Your task to perform on an android device: Go to display settings Image 0: 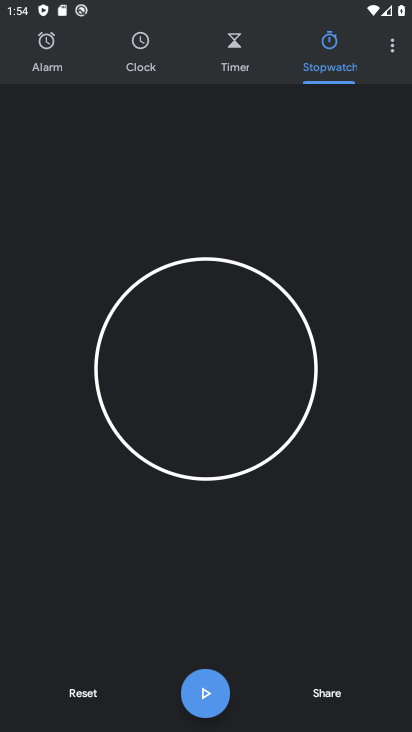
Step 0: drag from (320, 554) to (303, 307)
Your task to perform on an android device: Go to display settings Image 1: 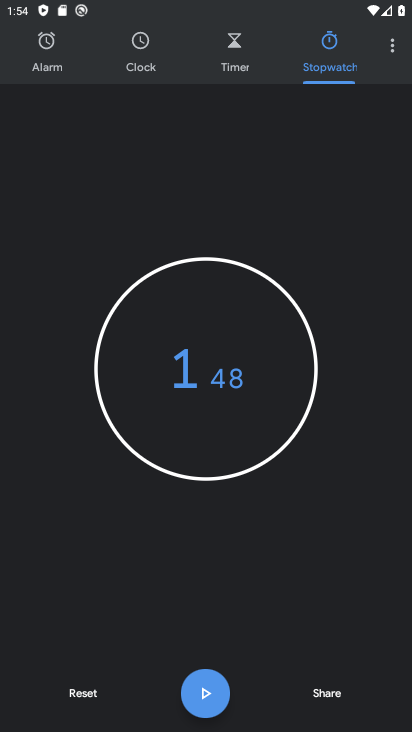
Step 1: press home button
Your task to perform on an android device: Go to display settings Image 2: 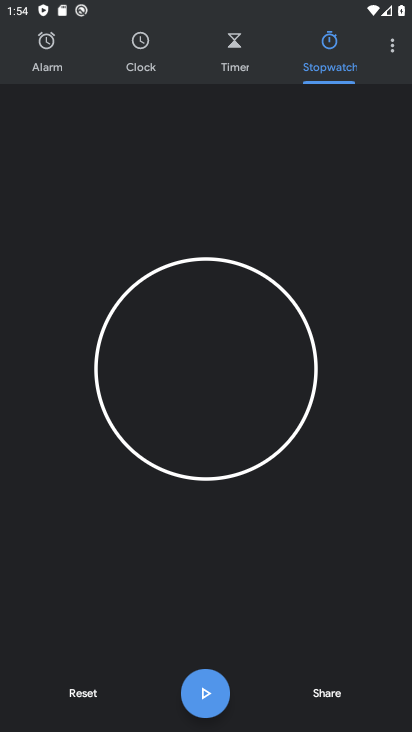
Step 2: press home button
Your task to perform on an android device: Go to display settings Image 3: 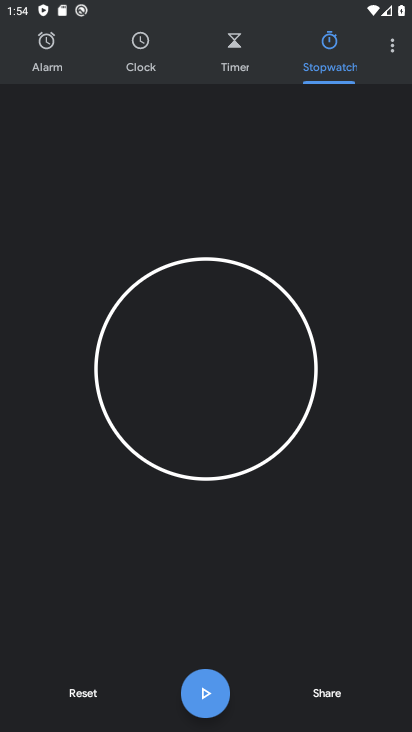
Step 3: drag from (260, 402) to (268, 228)
Your task to perform on an android device: Go to display settings Image 4: 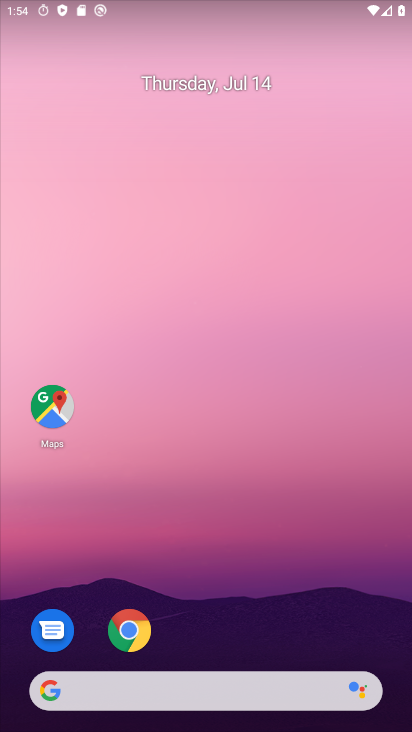
Step 4: drag from (194, 614) to (222, 142)
Your task to perform on an android device: Go to display settings Image 5: 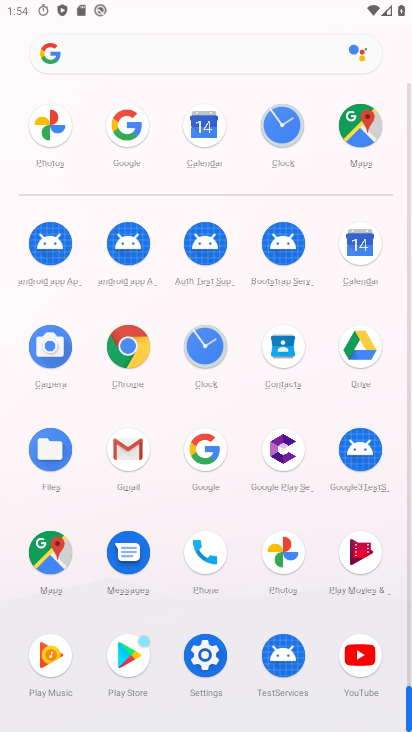
Step 5: click (215, 651)
Your task to perform on an android device: Go to display settings Image 6: 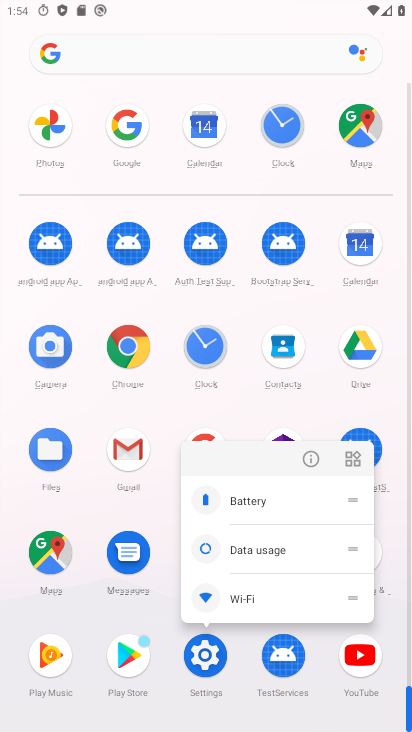
Step 6: click (315, 456)
Your task to perform on an android device: Go to display settings Image 7: 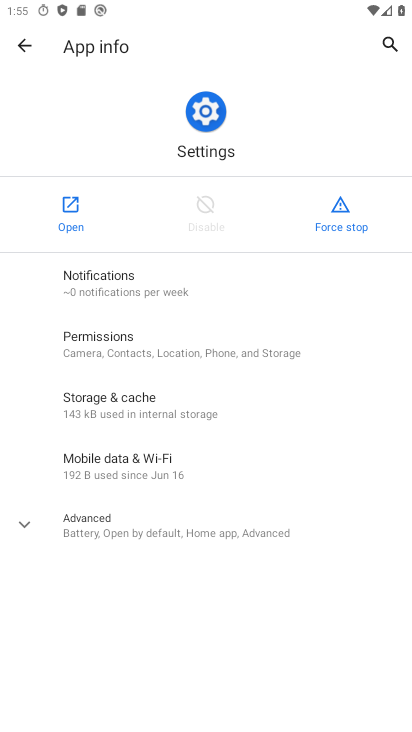
Step 7: click (65, 217)
Your task to perform on an android device: Go to display settings Image 8: 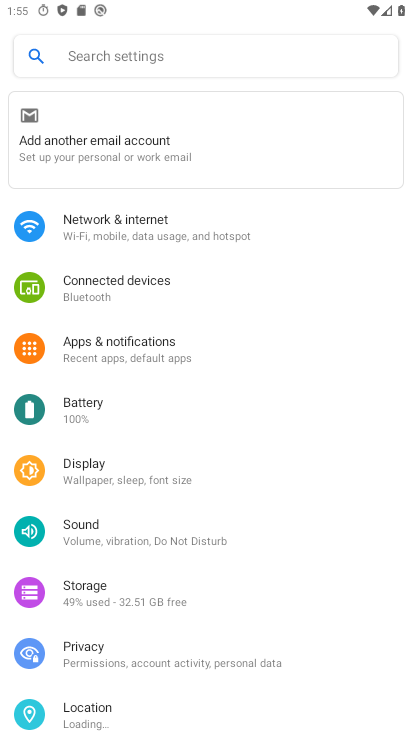
Step 8: click (100, 464)
Your task to perform on an android device: Go to display settings Image 9: 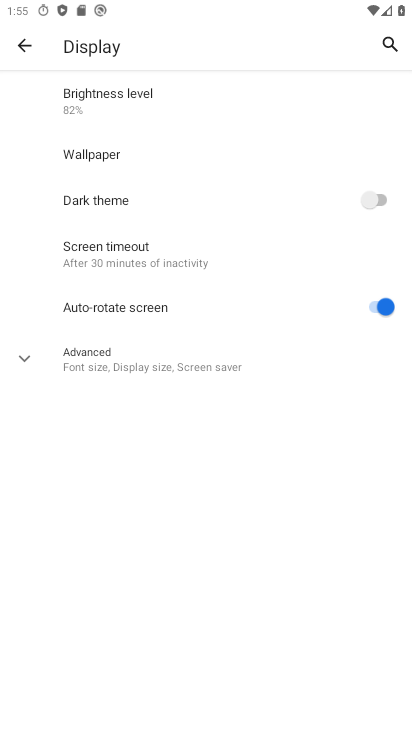
Step 9: task complete